Your task to perform on an android device: turn off airplane mode Image 0: 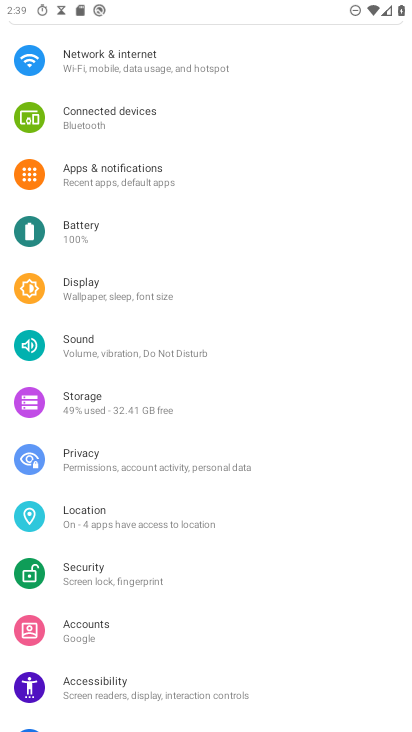
Step 0: click (188, 52)
Your task to perform on an android device: turn off airplane mode Image 1: 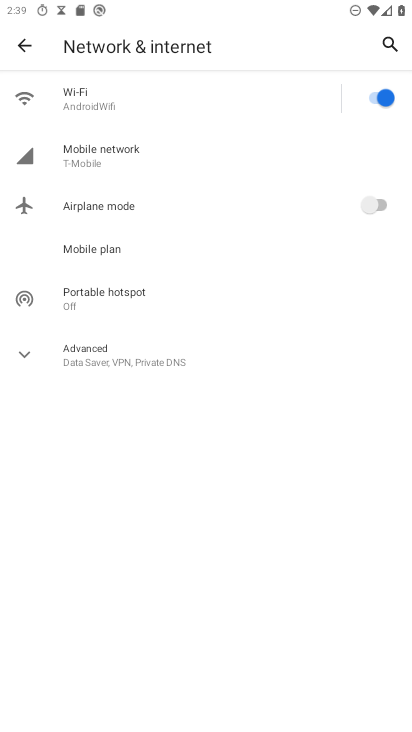
Step 1: task complete